Your task to perform on an android device: turn vacation reply on in the gmail app Image 0: 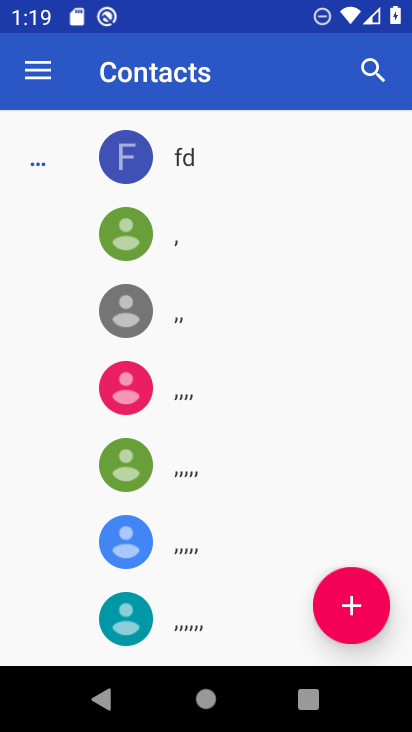
Step 0: press home button
Your task to perform on an android device: turn vacation reply on in the gmail app Image 1: 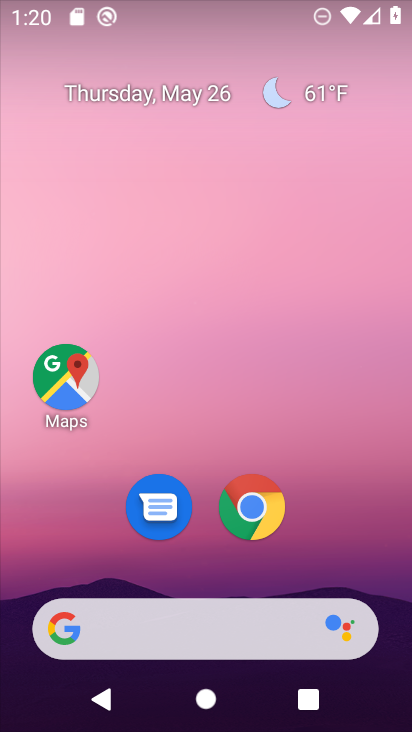
Step 1: drag from (342, 570) to (308, 227)
Your task to perform on an android device: turn vacation reply on in the gmail app Image 2: 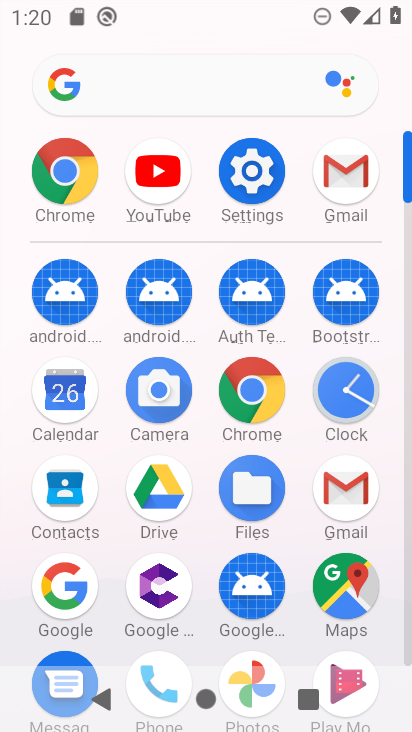
Step 2: click (328, 185)
Your task to perform on an android device: turn vacation reply on in the gmail app Image 3: 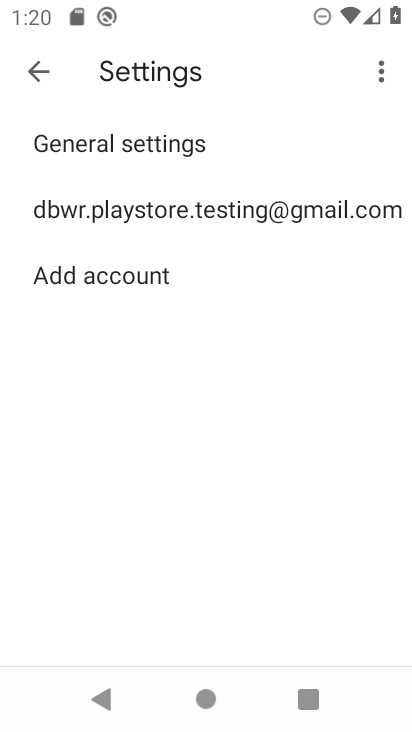
Step 3: click (217, 226)
Your task to perform on an android device: turn vacation reply on in the gmail app Image 4: 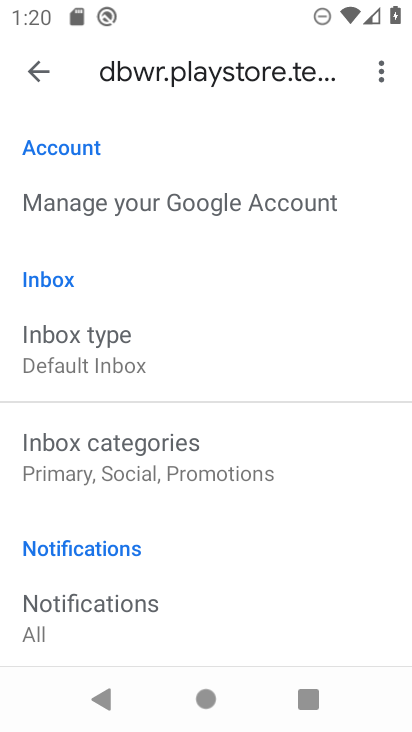
Step 4: task complete